Your task to perform on an android device: Go to calendar. Show me events next week Image 0: 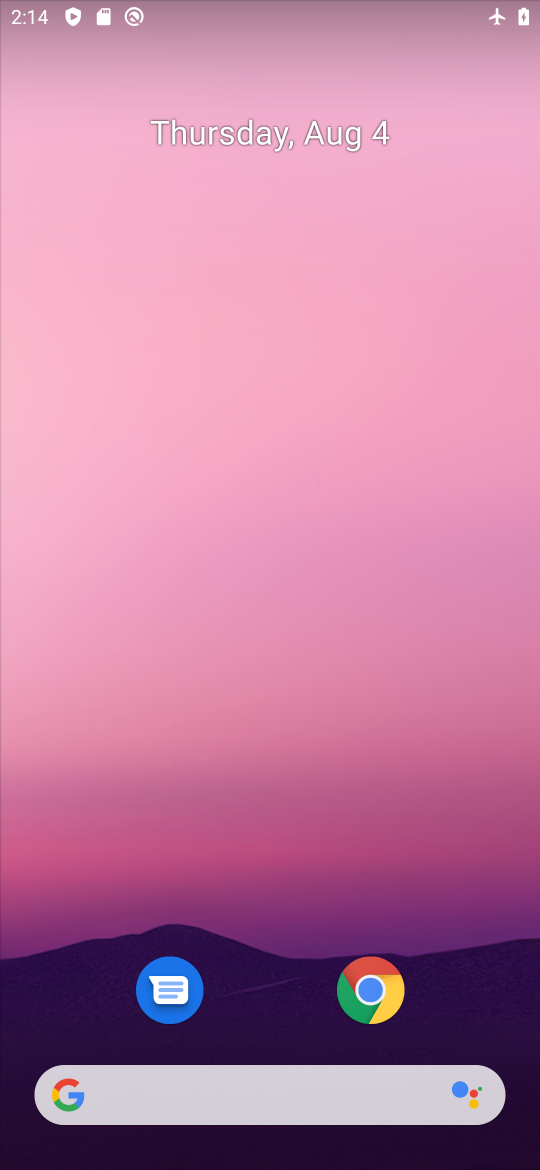
Step 0: drag from (275, 1043) to (431, 461)
Your task to perform on an android device: Go to calendar. Show me events next week Image 1: 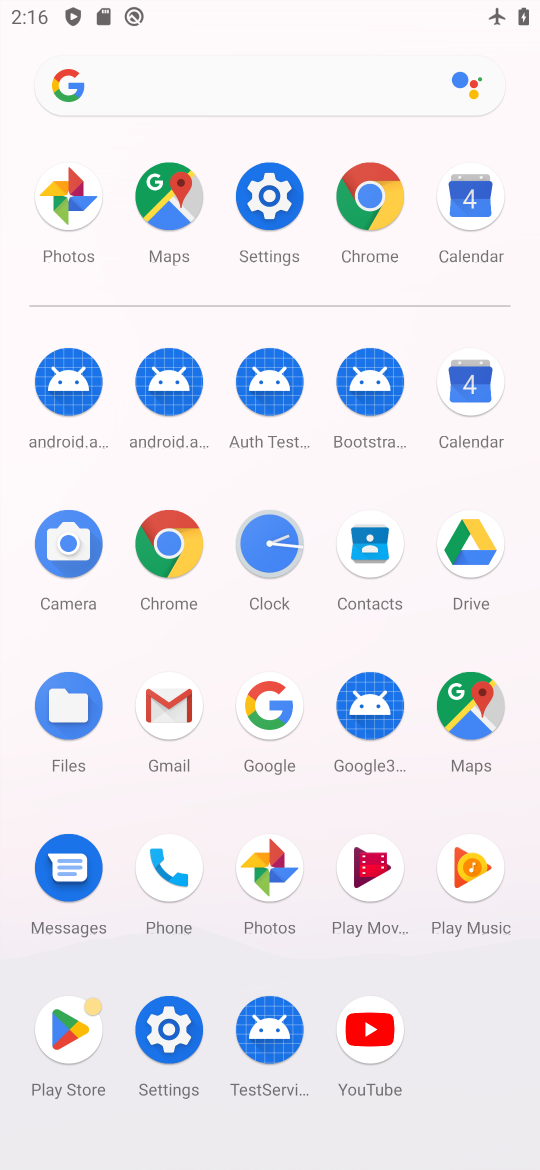
Step 1: click (442, 188)
Your task to perform on an android device: Go to calendar. Show me events next week Image 2: 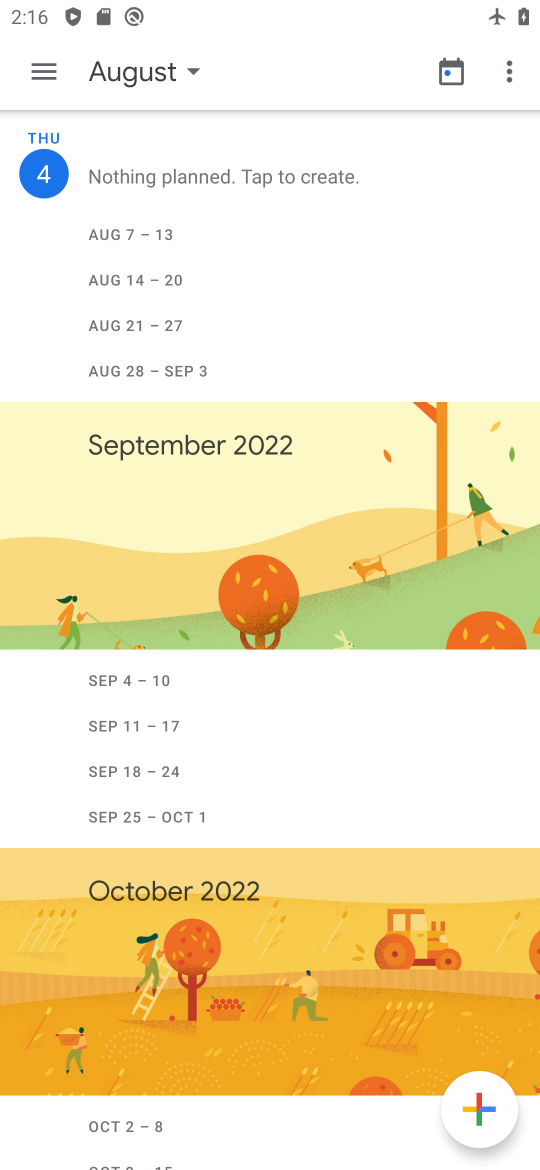
Step 2: task complete